Your task to perform on an android device: Open privacy settings Image 0: 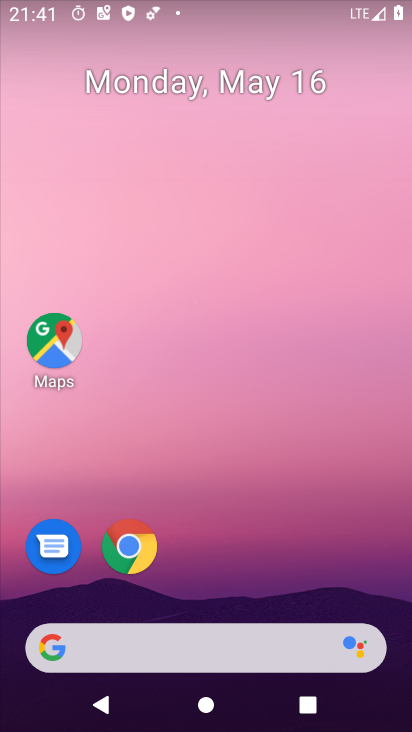
Step 0: drag from (283, 665) to (293, 128)
Your task to perform on an android device: Open privacy settings Image 1: 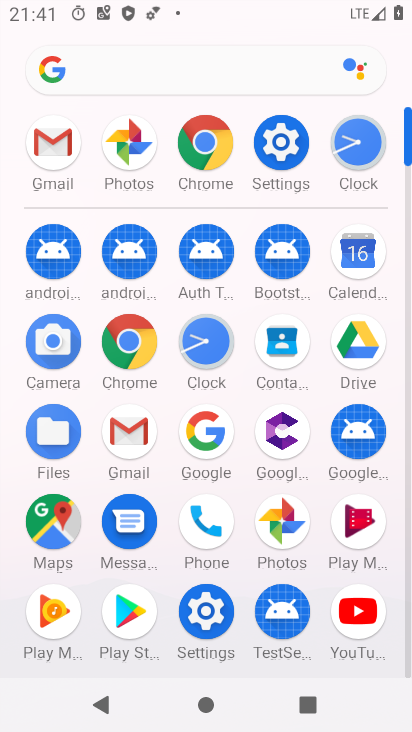
Step 1: click (218, 613)
Your task to perform on an android device: Open privacy settings Image 2: 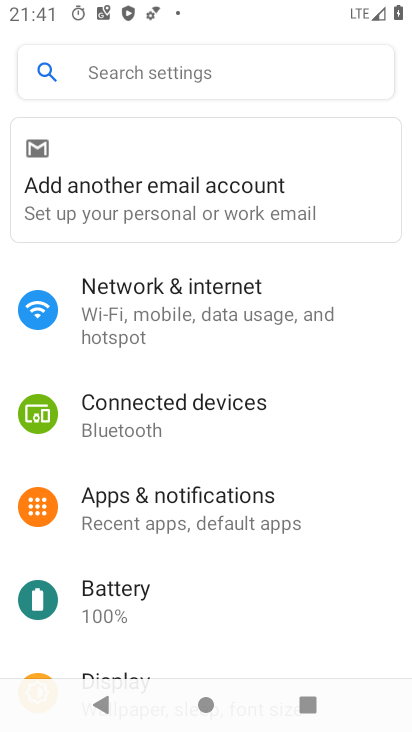
Step 2: drag from (217, 588) to (228, 402)
Your task to perform on an android device: Open privacy settings Image 3: 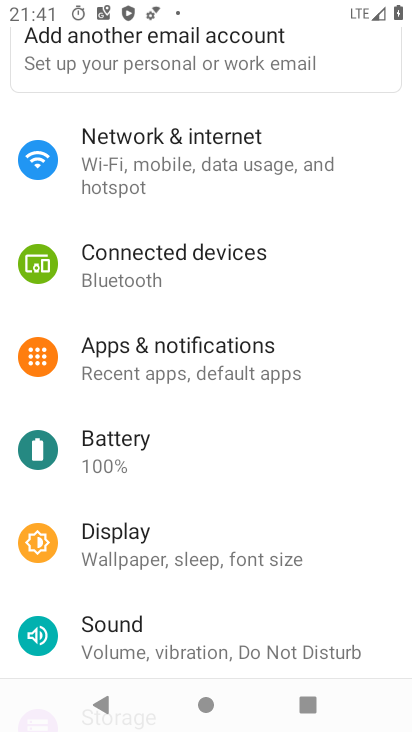
Step 3: drag from (183, 545) to (237, 401)
Your task to perform on an android device: Open privacy settings Image 4: 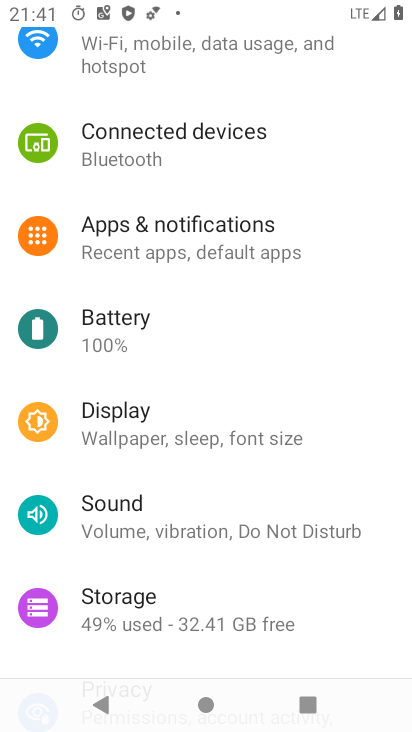
Step 4: drag from (185, 547) to (188, 401)
Your task to perform on an android device: Open privacy settings Image 5: 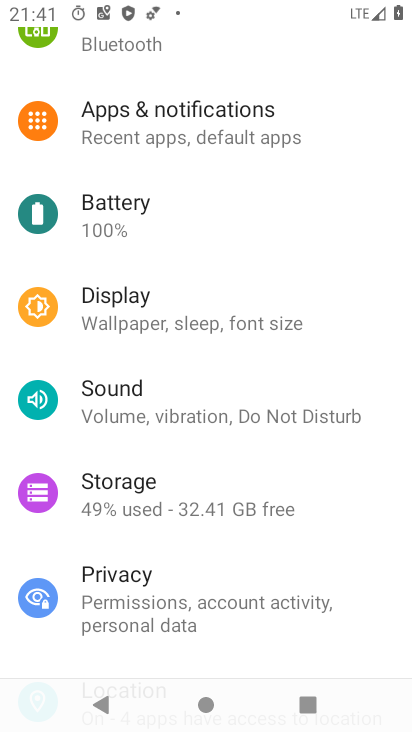
Step 5: click (131, 583)
Your task to perform on an android device: Open privacy settings Image 6: 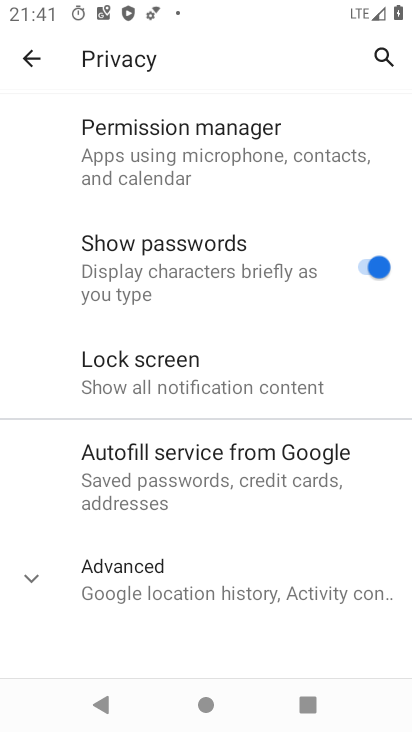
Step 6: click (78, 568)
Your task to perform on an android device: Open privacy settings Image 7: 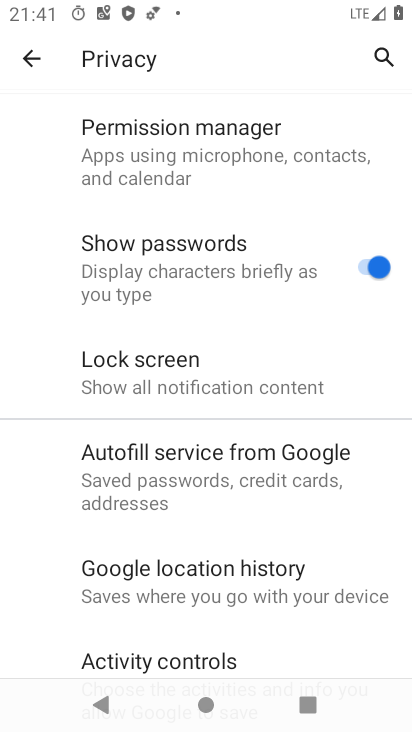
Step 7: task complete